Your task to perform on an android device: Open CNN.com Image 0: 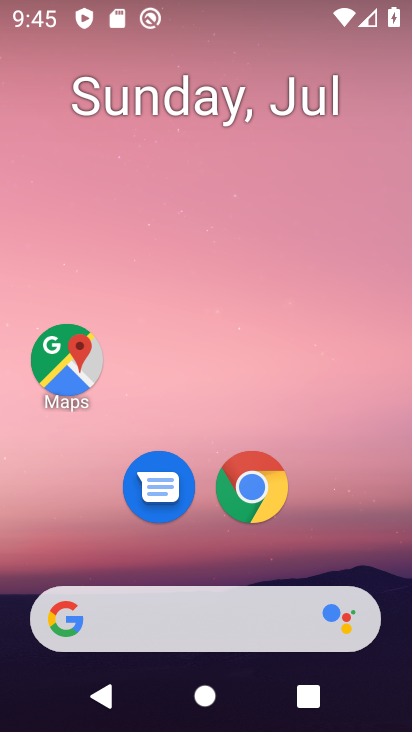
Step 0: click (240, 482)
Your task to perform on an android device: Open CNN.com Image 1: 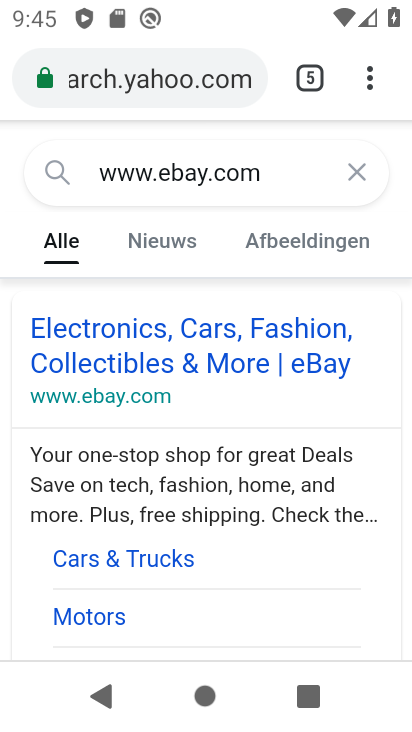
Step 1: click (358, 168)
Your task to perform on an android device: Open CNN.com Image 2: 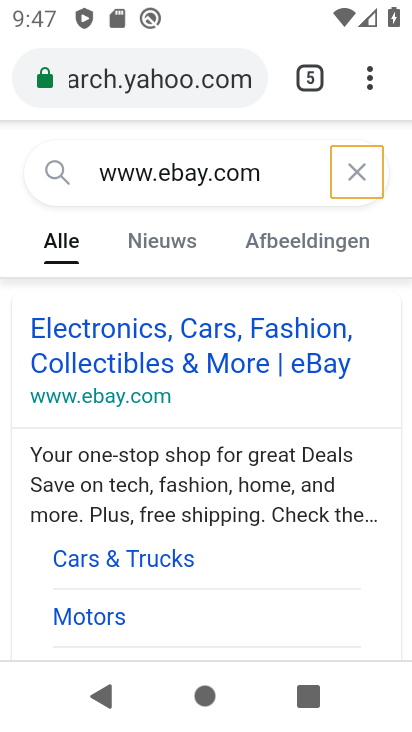
Step 2: click (319, 90)
Your task to perform on an android device: Open CNN.com Image 3: 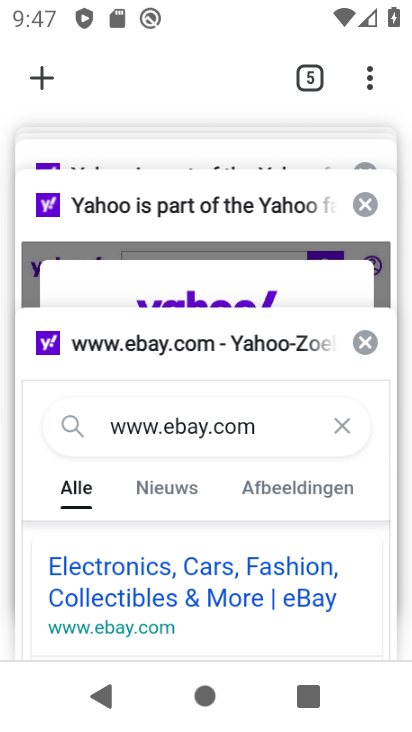
Step 3: click (306, 98)
Your task to perform on an android device: Open CNN.com Image 4: 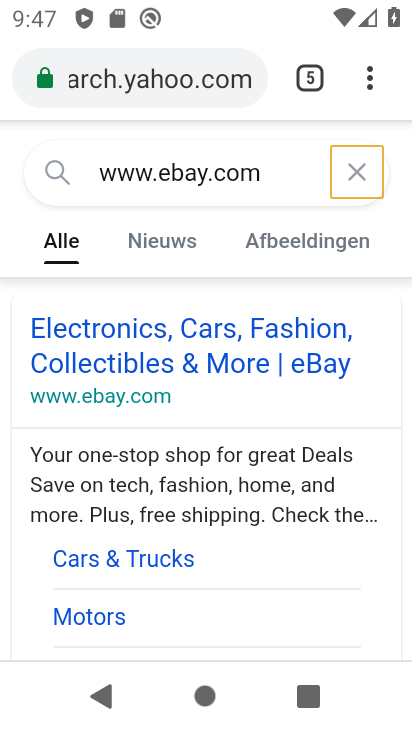
Step 4: click (316, 80)
Your task to perform on an android device: Open CNN.com Image 5: 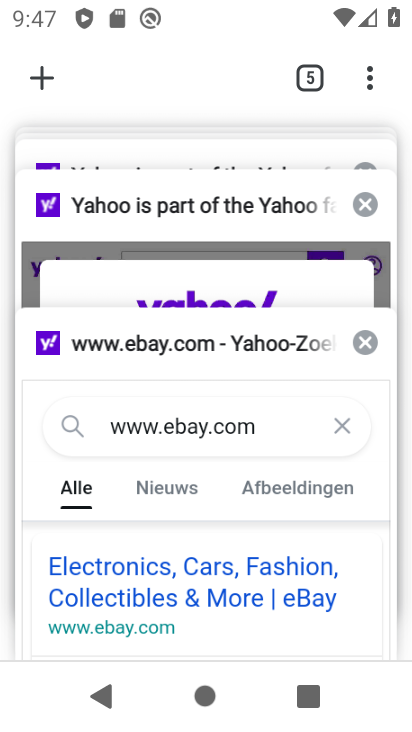
Step 5: click (43, 79)
Your task to perform on an android device: Open CNN.com Image 6: 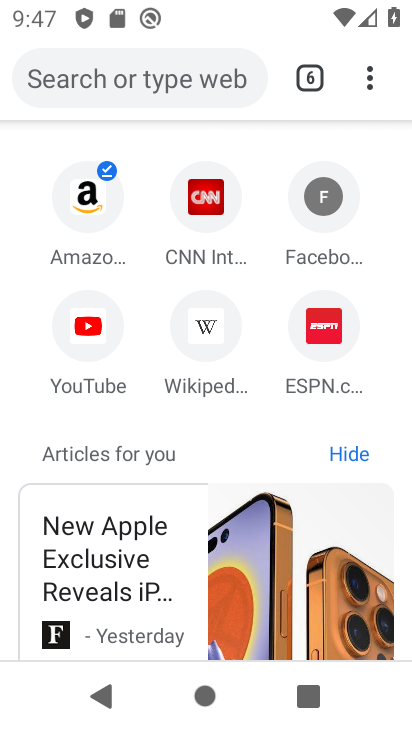
Step 6: click (206, 199)
Your task to perform on an android device: Open CNN.com Image 7: 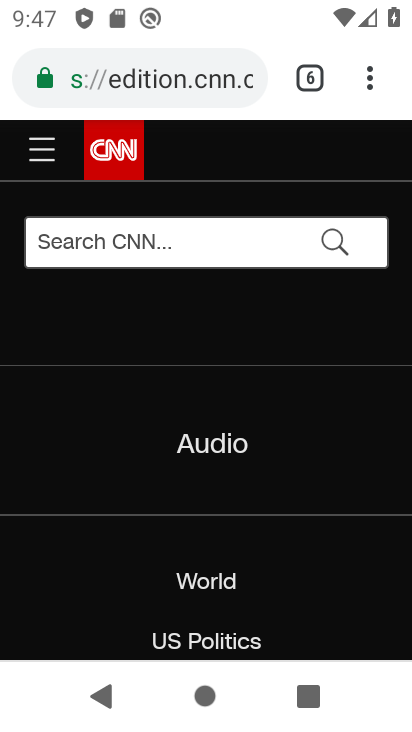
Step 7: task complete